Your task to perform on an android device: turn on airplane mode Image 0: 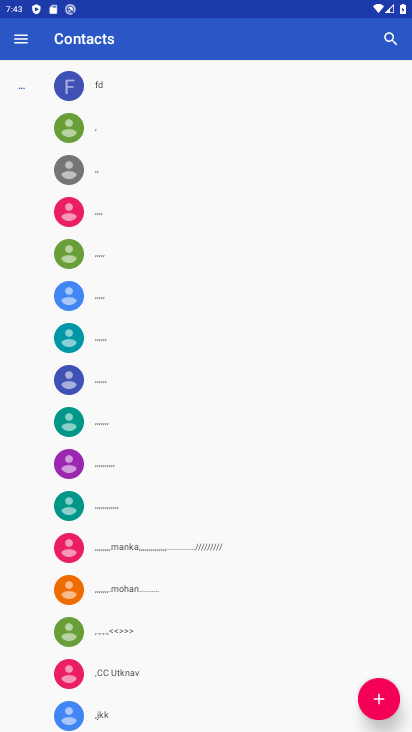
Step 0: drag from (116, 630) to (177, 425)
Your task to perform on an android device: turn on airplane mode Image 1: 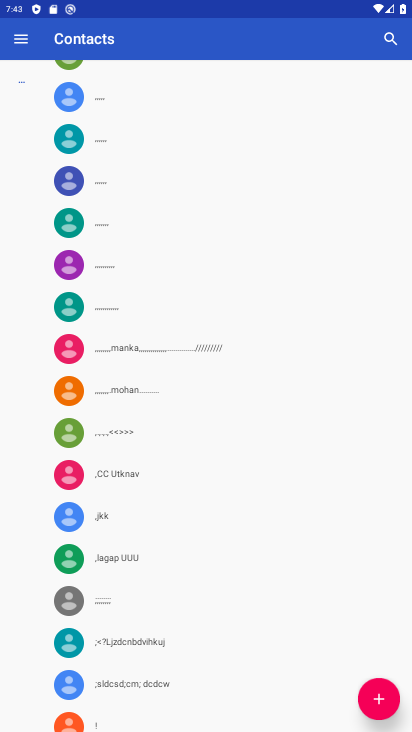
Step 1: press home button
Your task to perform on an android device: turn on airplane mode Image 2: 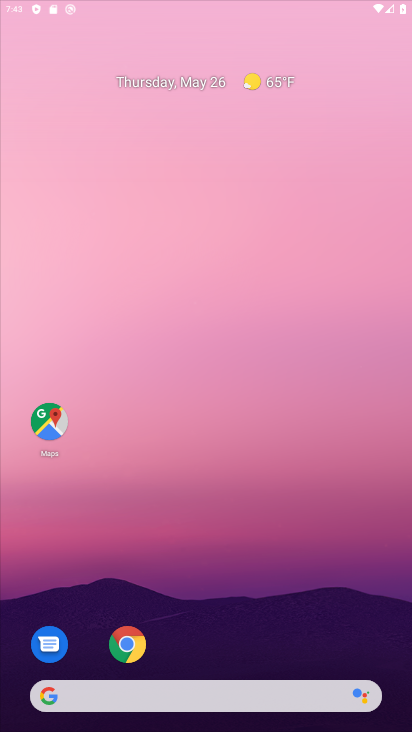
Step 2: drag from (156, 645) to (222, 72)
Your task to perform on an android device: turn on airplane mode Image 3: 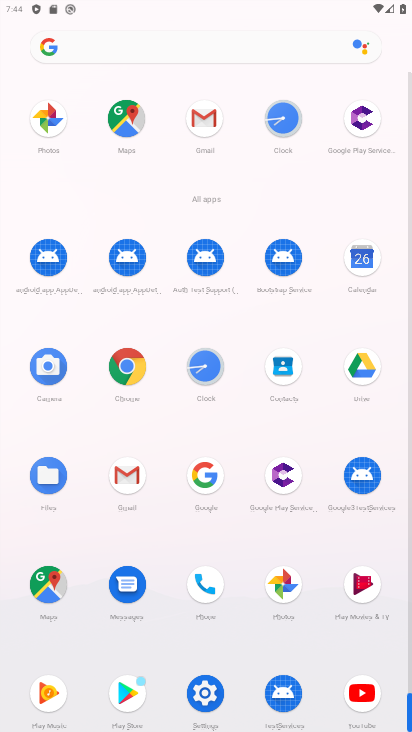
Step 3: click (201, 696)
Your task to perform on an android device: turn on airplane mode Image 4: 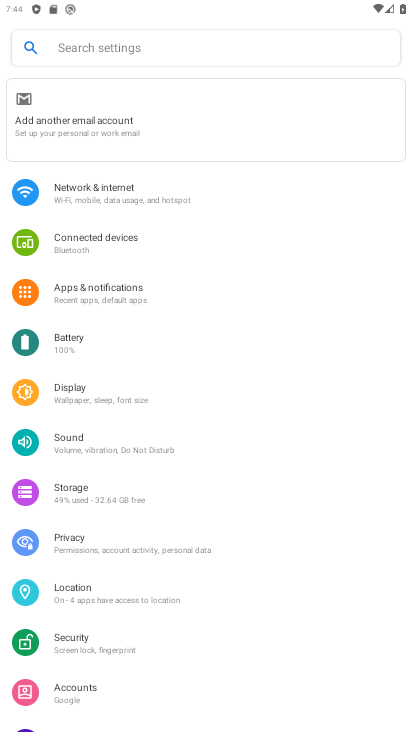
Step 4: click (89, 190)
Your task to perform on an android device: turn on airplane mode Image 5: 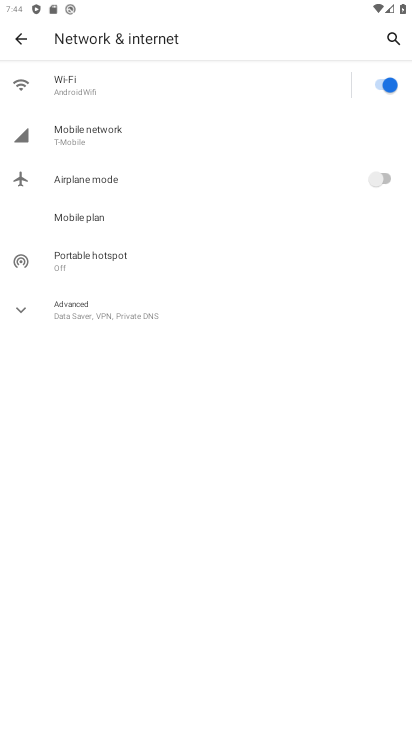
Step 5: click (92, 164)
Your task to perform on an android device: turn on airplane mode Image 6: 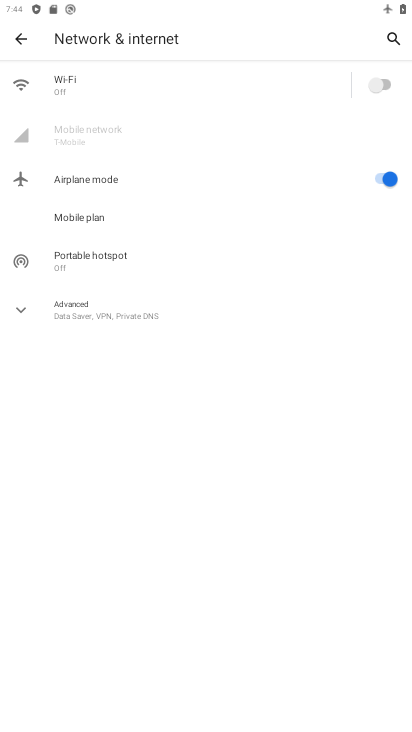
Step 6: task complete